Your task to perform on an android device: empty trash in google photos Image 0: 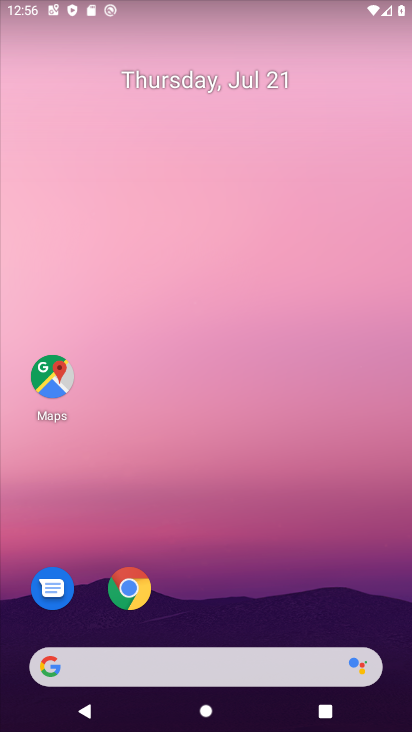
Step 0: drag from (274, 489) to (258, 190)
Your task to perform on an android device: empty trash in google photos Image 1: 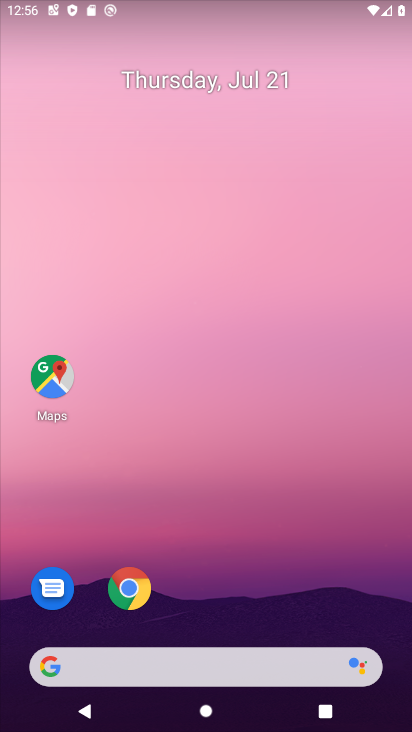
Step 1: drag from (236, 540) to (264, 132)
Your task to perform on an android device: empty trash in google photos Image 2: 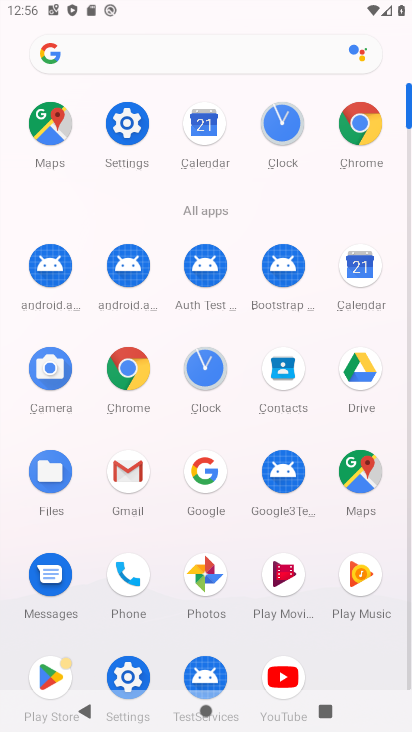
Step 2: click (202, 579)
Your task to perform on an android device: empty trash in google photos Image 3: 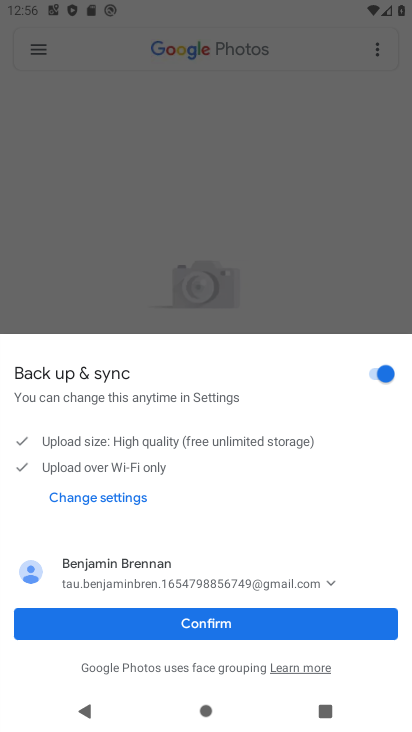
Step 3: click (195, 249)
Your task to perform on an android device: empty trash in google photos Image 4: 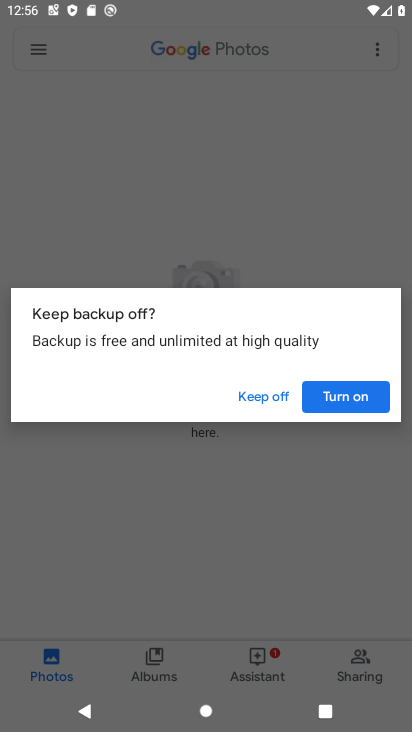
Step 4: click (319, 393)
Your task to perform on an android device: empty trash in google photos Image 5: 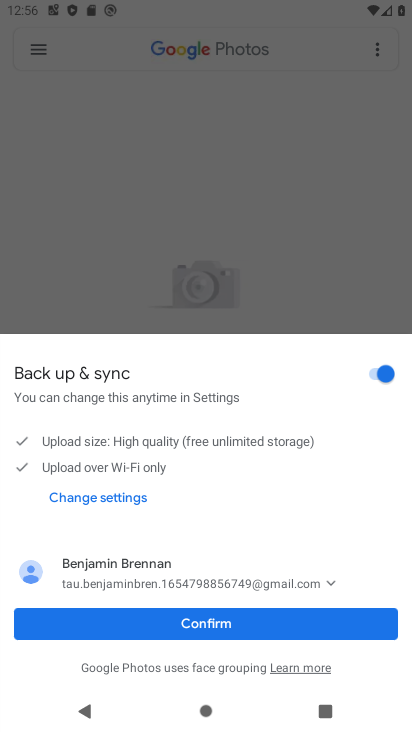
Step 5: click (258, 618)
Your task to perform on an android device: empty trash in google photos Image 6: 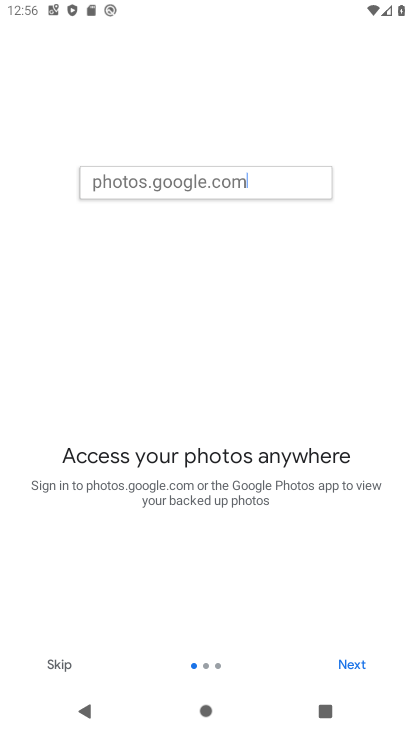
Step 6: click (53, 668)
Your task to perform on an android device: empty trash in google photos Image 7: 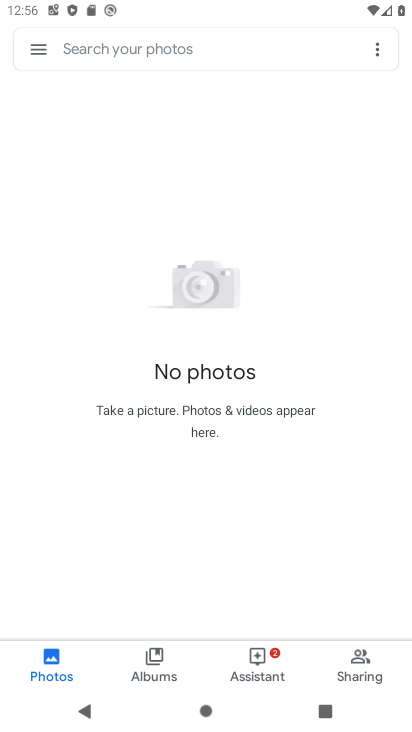
Step 7: click (154, 656)
Your task to perform on an android device: empty trash in google photos Image 8: 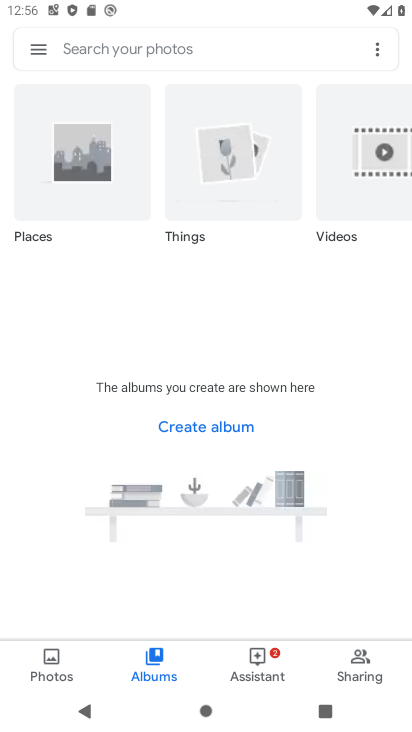
Step 8: click (40, 49)
Your task to perform on an android device: empty trash in google photos Image 9: 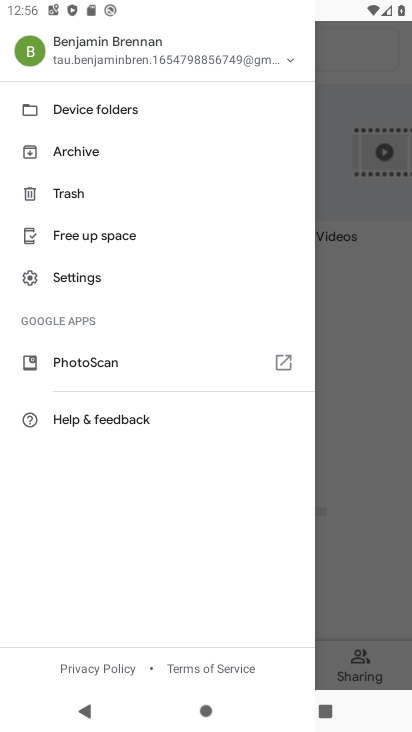
Step 9: click (63, 195)
Your task to perform on an android device: empty trash in google photos Image 10: 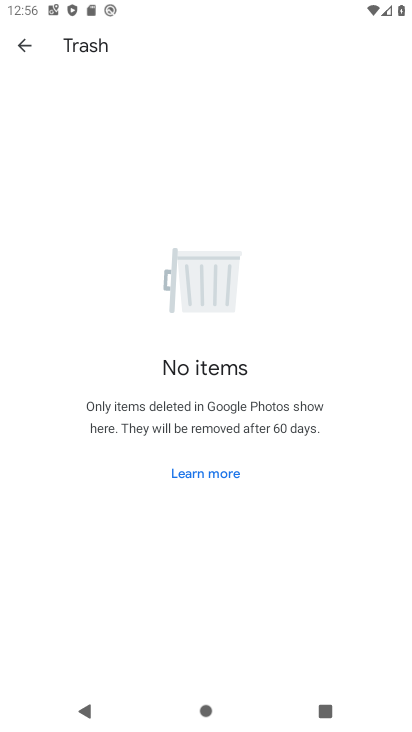
Step 10: task complete